Your task to perform on an android device: turn off data saver in the chrome app Image 0: 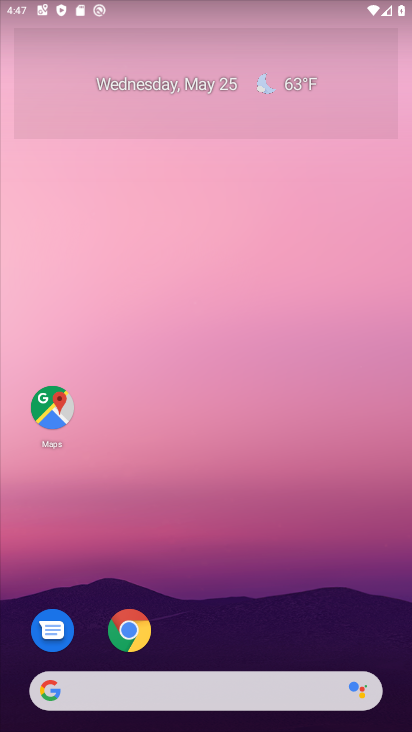
Step 0: click (128, 629)
Your task to perform on an android device: turn off data saver in the chrome app Image 1: 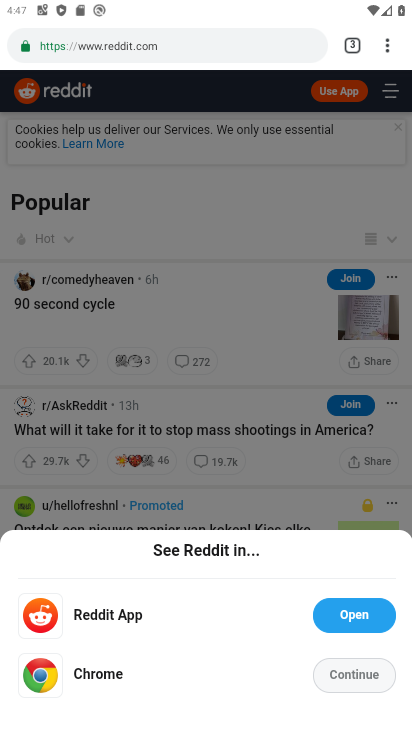
Step 1: drag from (383, 45) to (223, 510)
Your task to perform on an android device: turn off data saver in the chrome app Image 2: 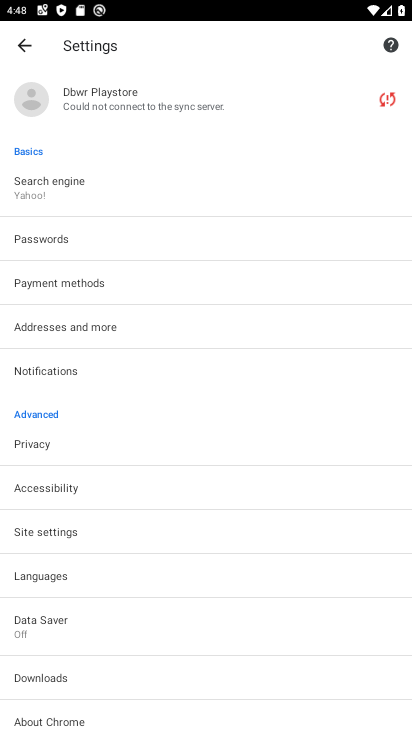
Step 2: click (53, 624)
Your task to perform on an android device: turn off data saver in the chrome app Image 3: 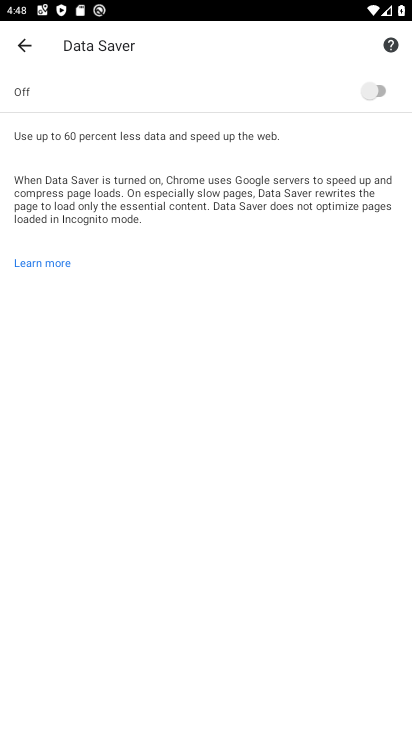
Step 3: task complete